Your task to perform on an android device: turn smart compose on in the gmail app Image 0: 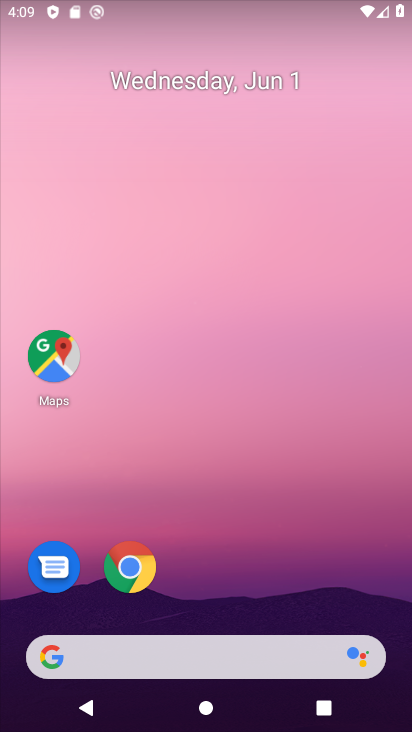
Step 0: drag from (146, 720) to (201, 71)
Your task to perform on an android device: turn smart compose on in the gmail app Image 1: 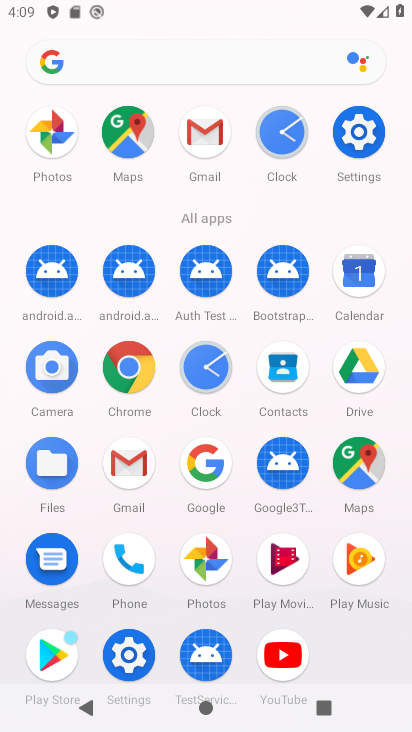
Step 1: click (138, 473)
Your task to perform on an android device: turn smart compose on in the gmail app Image 2: 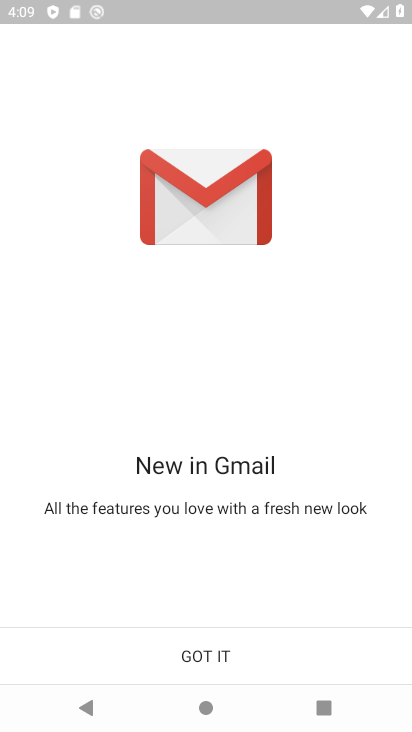
Step 2: click (215, 659)
Your task to perform on an android device: turn smart compose on in the gmail app Image 3: 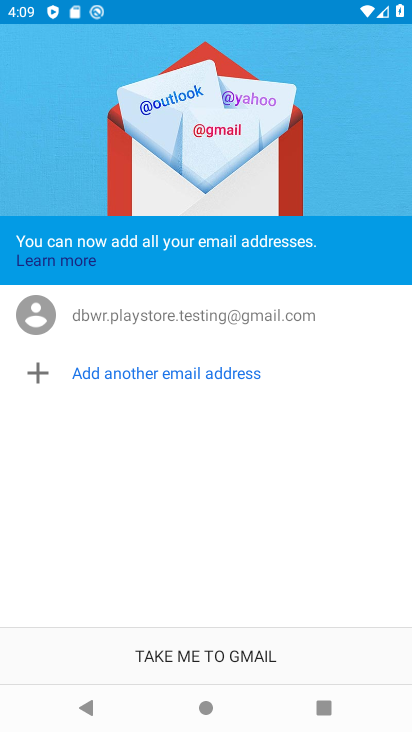
Step 3: click (229, 667)
Your task to perform on an android device: turn smart compose on in the gmail app Image 4: 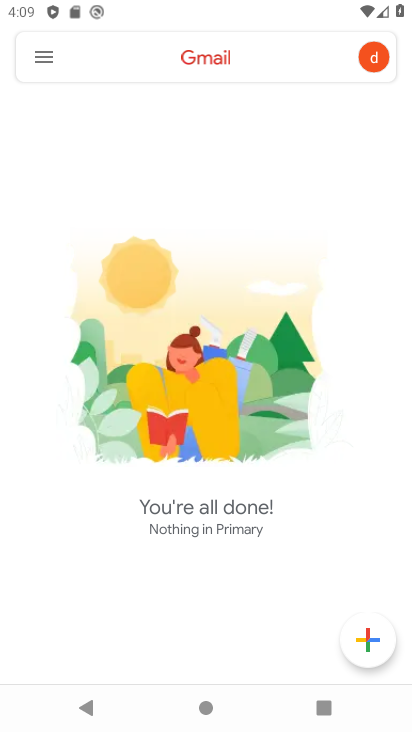
Step 4: click (47, 63)
Your task to perform on an android device: turn smart compose on in the gmail app Image 5: 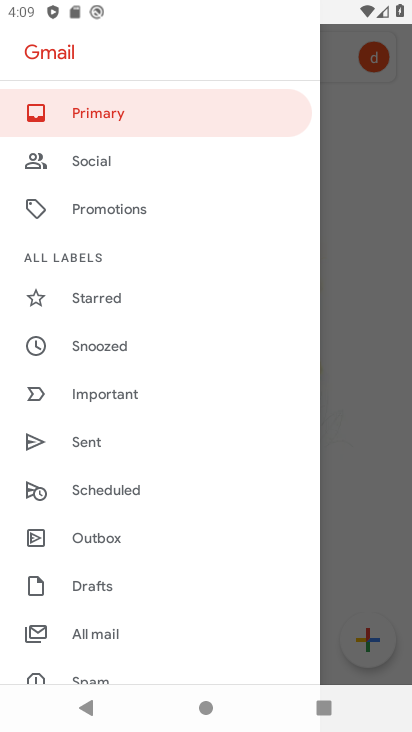
Step 5: drag from (171, 636) to (197, 244)
Your task to perform on an android device: turn smart compose on in the gmail app Image 6: 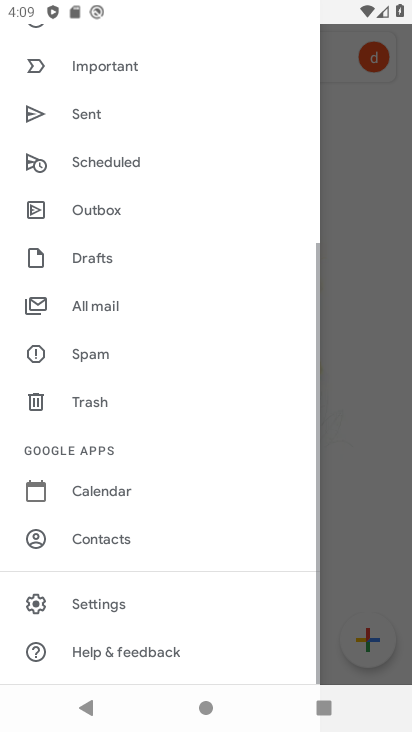
Step 6: click (87, 612)
Your task to perform on an android device: turn smart compose on in the gmail app Image 7: 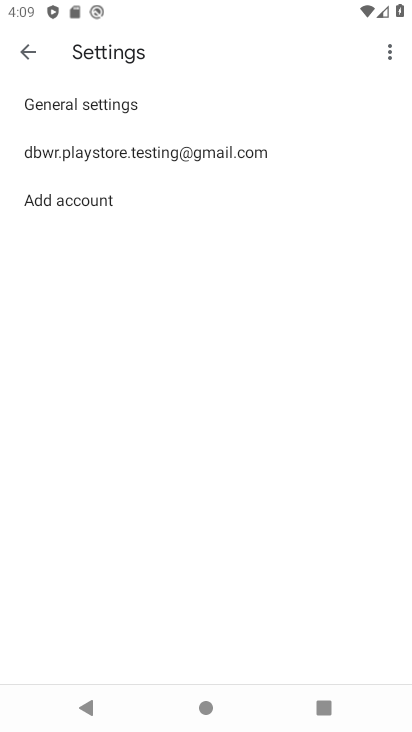
Step 7: click (156, 157)
Your task to perform on an android device: turn smart compose on in the gmail app Image 8: 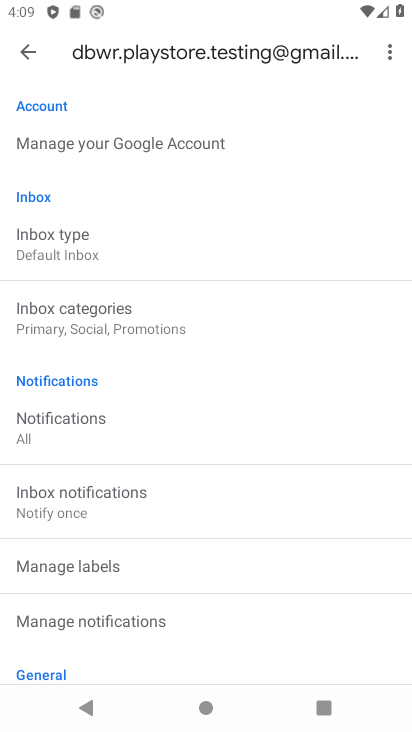
Step 8: task complete